Your task to perform on an android device: What's on my calendar tomorrow? Image 0: 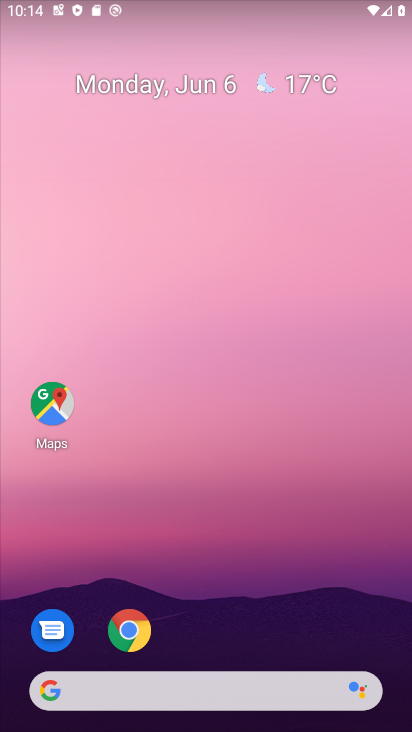
Step 0: drag from (306, 547) to (302, 176)
Your task to perform on an android device: What's on my calendar tomorrow? Image 1: 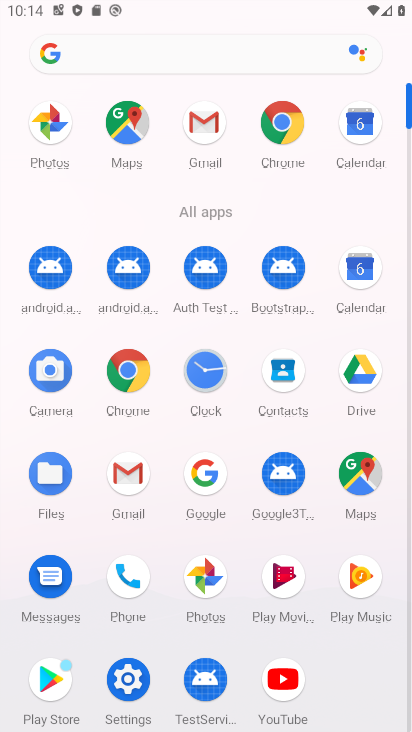
Step 1: click (358, 296)
Your task to perform on an android device: What's on my calendar tomorrow? Image 2: 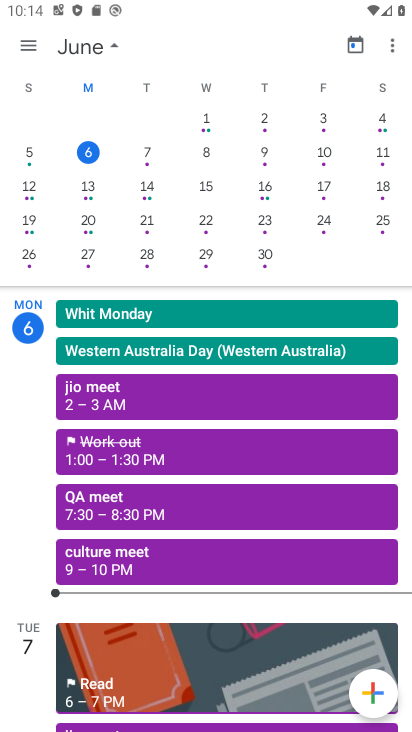
Step 2: click (148, 154)
Your task to perform on an android device: What's on my calendar tomorrow? Image 3: 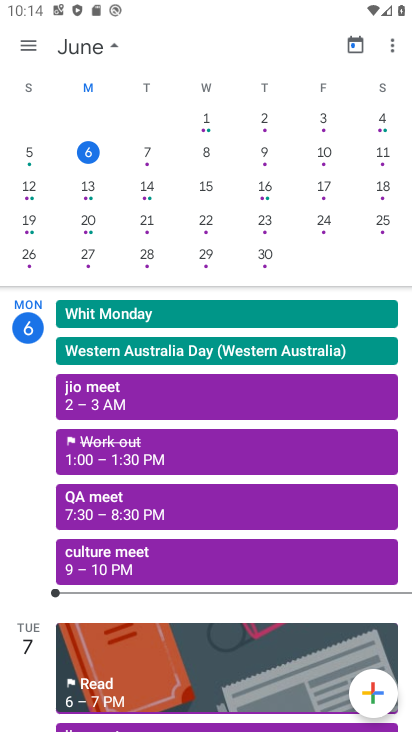
Step 3: click (149, 154)
Your task to perform on an android device: What's on my calendar tomorrow? Image 4: 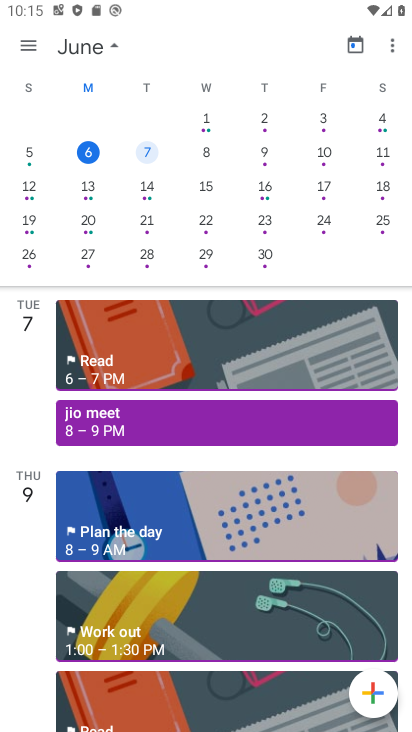
Step 4: task complete